Your task to perform on an android device: allow cookies in the chrome app Image 0: 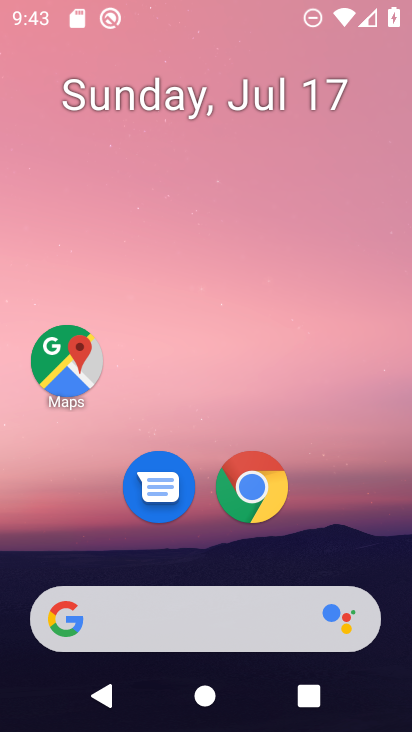
Step 0: press home button
Your task to perform on an android device: allow cookies in the chrome app Image 1: 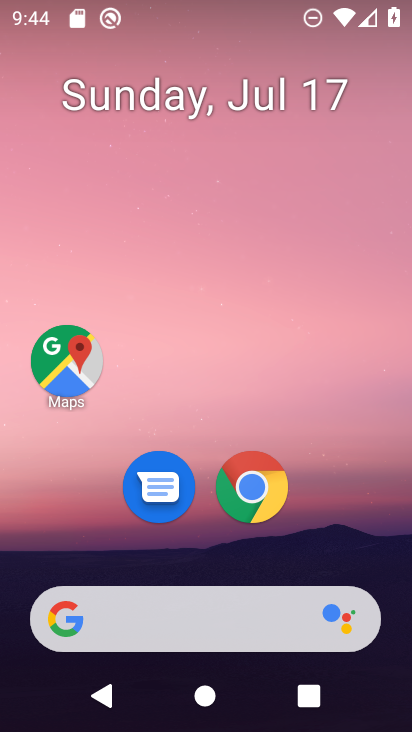
Step 1: drag from (315, 139) to (310, 52)
Your task to perform on an android device: allow cookies in the chrome app Image 2: 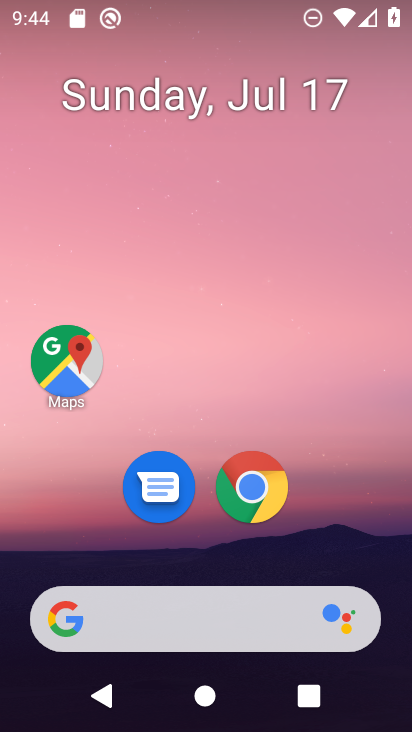
Step 2: drag from (315, 541) to (225, 11)
Your task to perform on an android device: allow cookies in the chrome app Image 3: 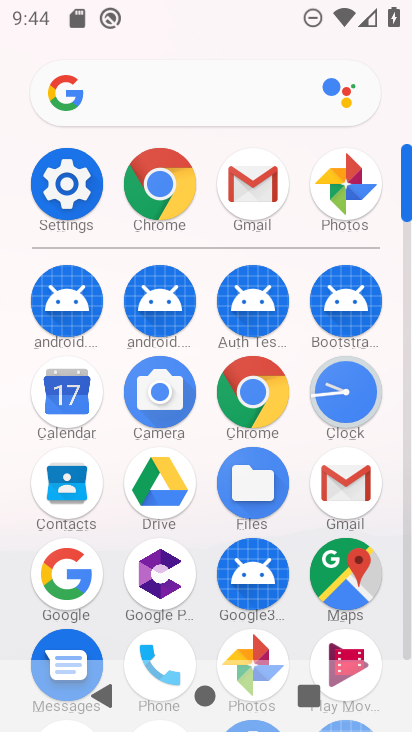
Step 3: click (163, 179)
Your task to perform on an android device: allow cookies in the chrome app Image 4: 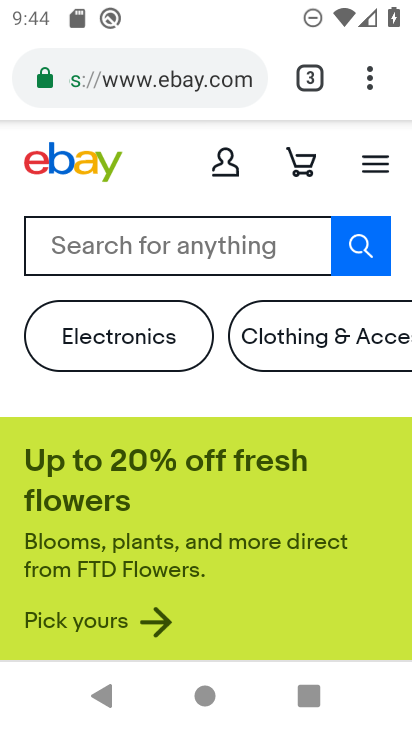
Step 4: drag from (374, 88) to (182, 522)
Your task to perform on an android device: allow cookies in the chrome app Image 5: 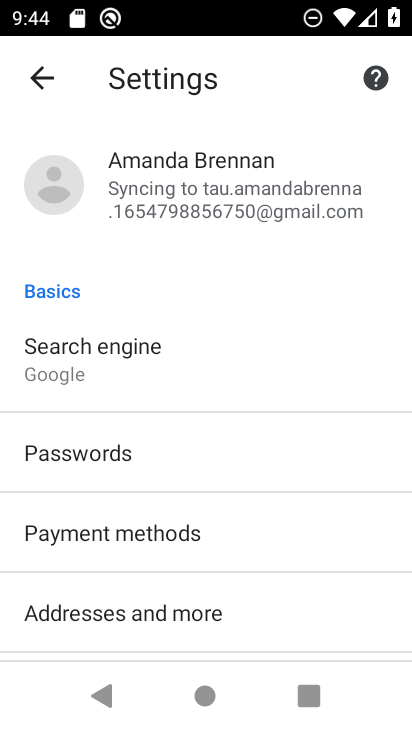
Step 5: drag from (292, 617) to (312, 96)
Your task to perform on an android device: allow cookies in the chrome app Image 6: 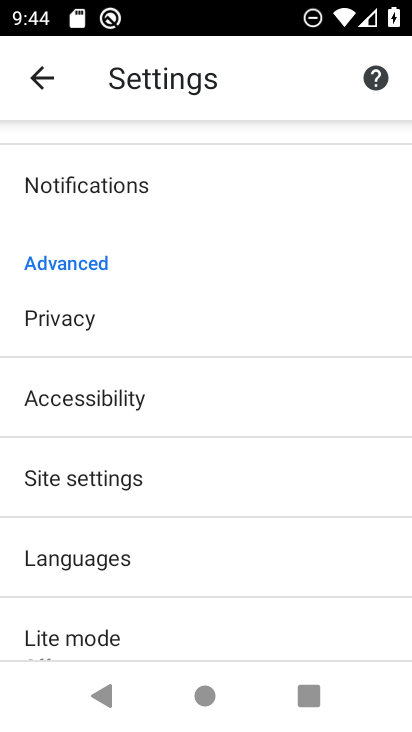
Step 6: click (88, 485)
Your task to perform on an android device: allow cookies in the chrome app Image 7: 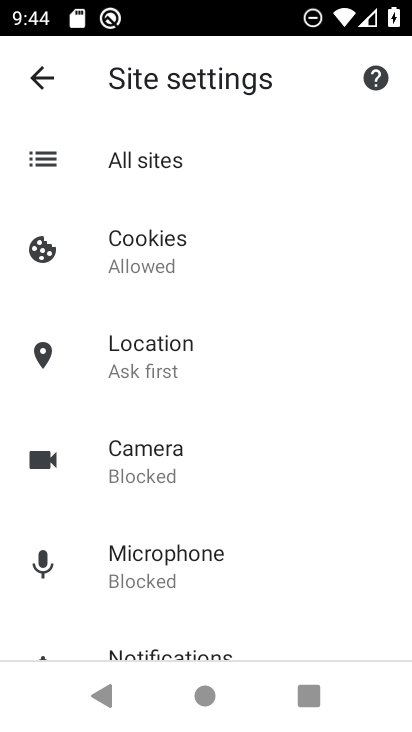
Step 7: click (152, 252)
Your task to perform on an android device: allow cookies in the chrome app Image 8: 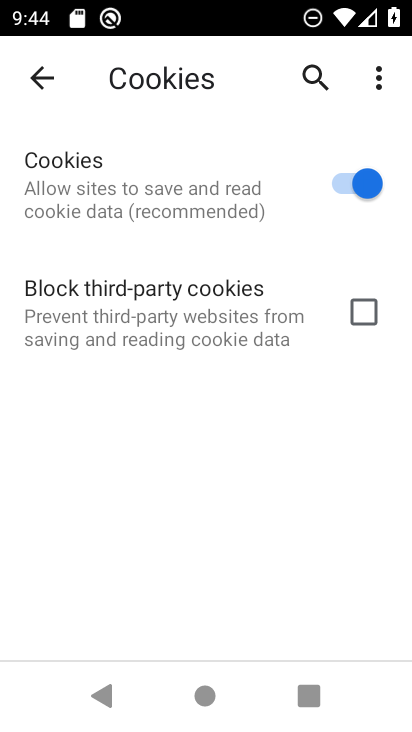
Step 8: task complete